Your task to perform on an android device: add a label to a message in the gmail app Image 0: 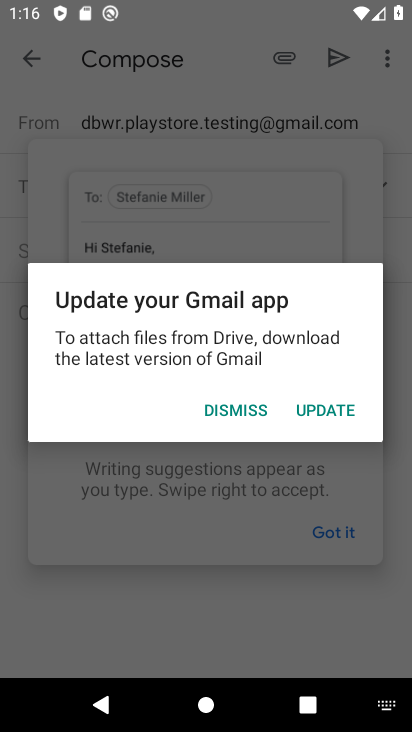
Step 0: press home button
Your task to perform on an android device: add a label to a message in the gmail app Image 1: 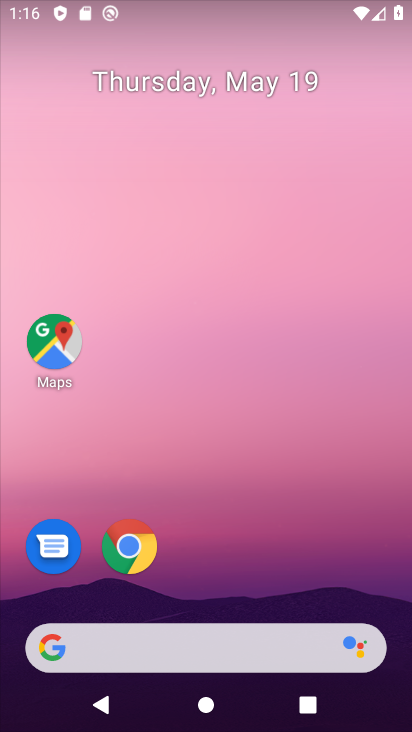
Step 1: drag from (276, 605) to (275, 201)
Your task to perform on an android device: add a label to a message in the gmail app Image 2: 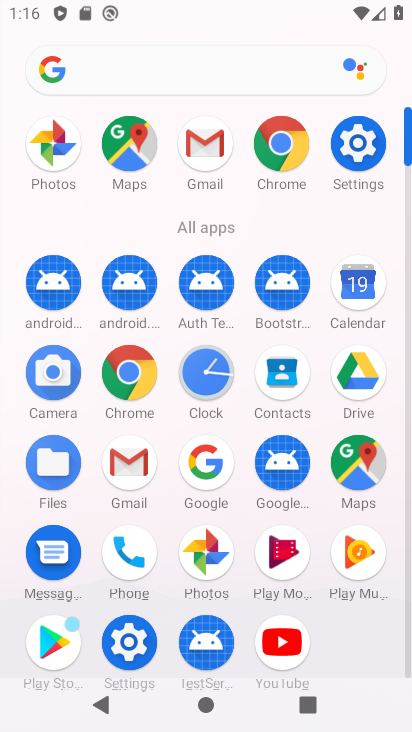
Step 2: click (132, 474)
Your task to perform on an android device: add a label to a message in the gmail app Image 3: 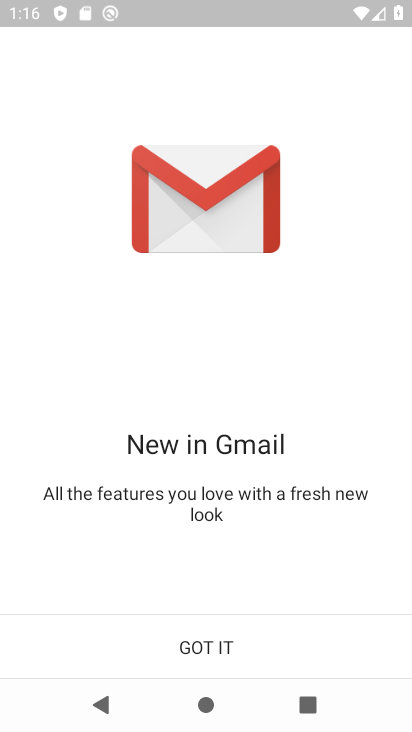
Step 3: click (206, 636)
Your task to perform on an android device: add a label to a message in the gmail app Image 4: 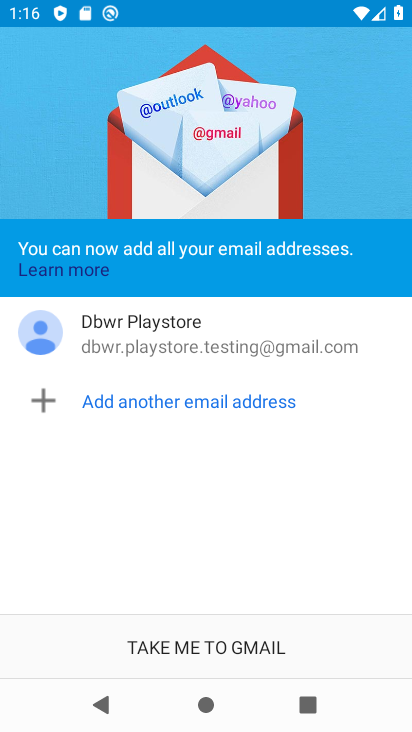
Step 4: click (202, 637)
Your task to perform on an android device: add a label to a message in the gmail app Image 5: 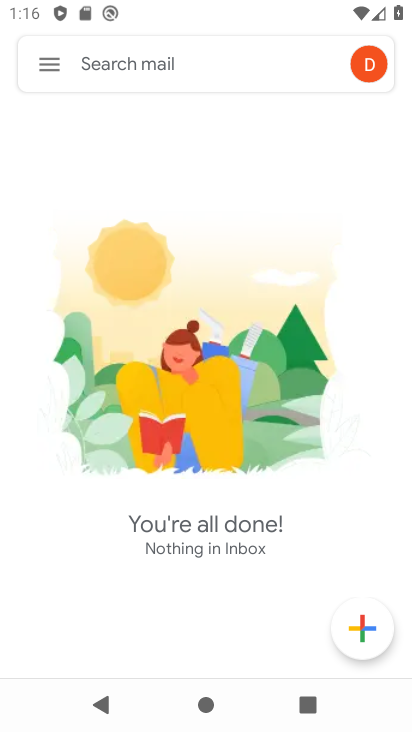
Step 5: click (58, 55)
Your task to perform on an android device: add a label to a message in the gmail app Image 6: 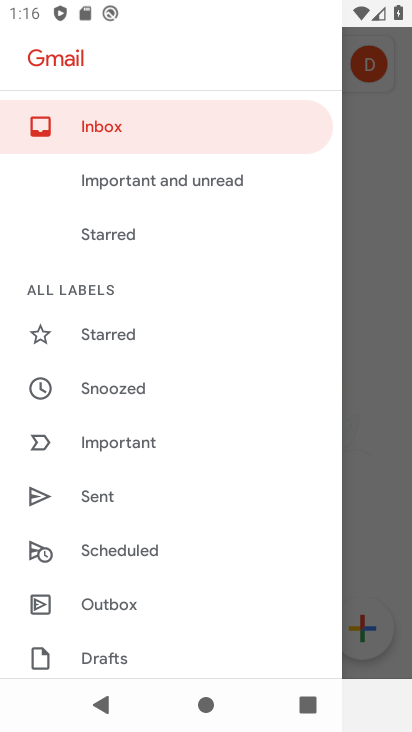
Step 6: drag from (157, 575) to (234, 207)
Your task to perform on an android device: add a label to a message in the gmail app Image 7: 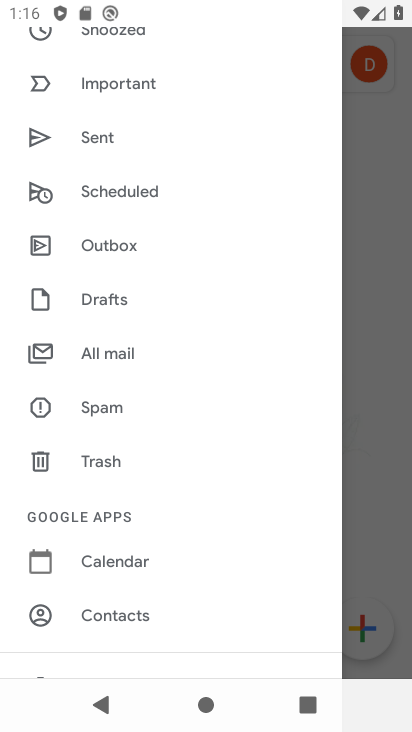
Step 7: click (135, 361)
Your task to perform on an android device: add a label to a message in the gmail app Image 8: 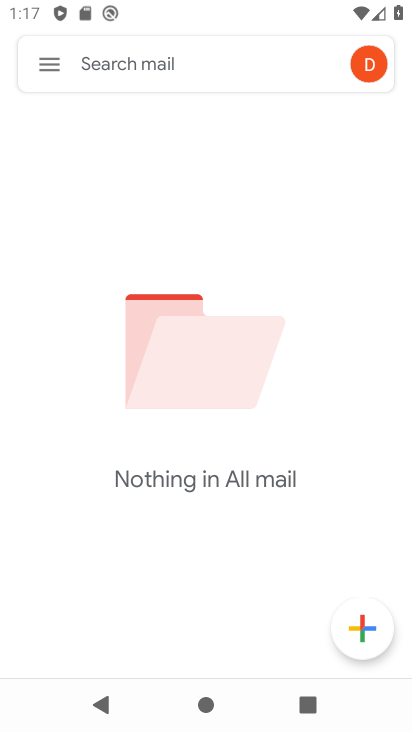
Step 8: task complete